Your task to perform on an android device: turn off smart reply in the gmail app Image 0: 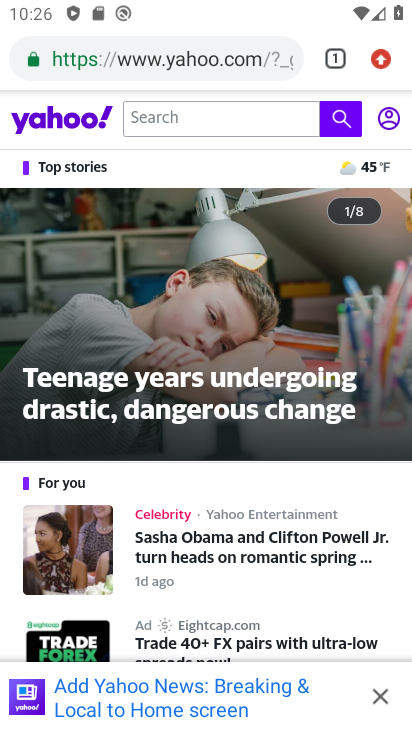
Step 0: press home button
Your task to perform on an android device: turn off smart reply in the gmail app Image 1: 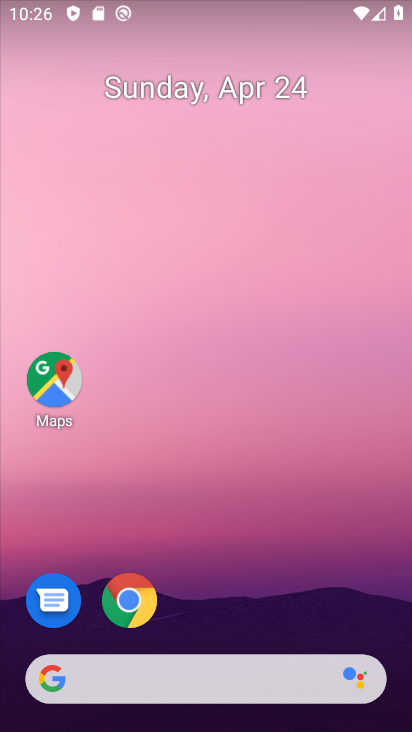
Step 1: drag from (243, 595) to (283, 78)
Your task to perform on an android device: turn off smart reply in the gmail app Image 2: 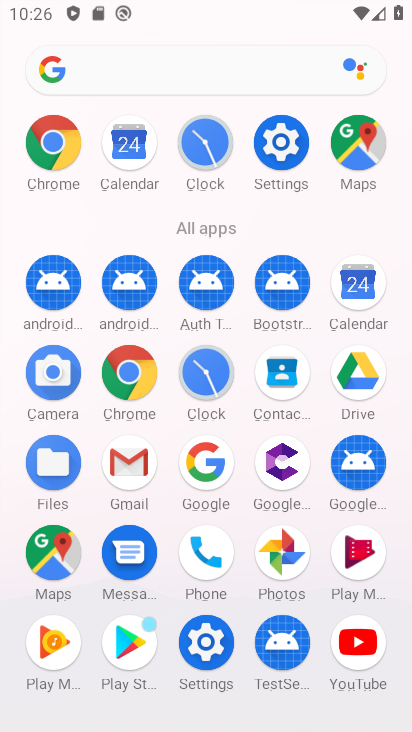
Step 2: click (130, 463)
Your task to perform on an android device: turn off smart reply in the gmail app Image 3: 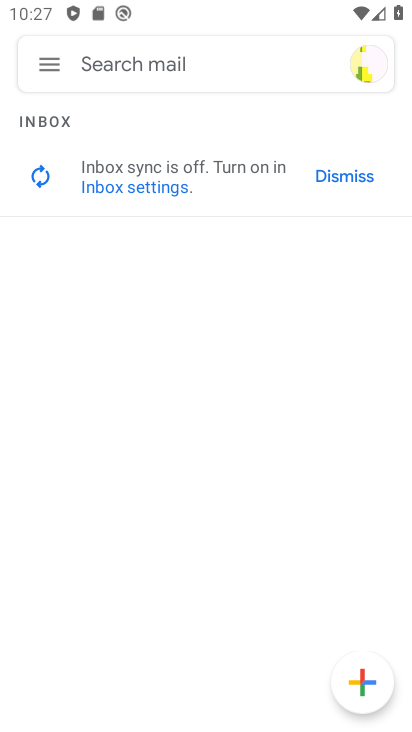
Step 3: click (49, 63)
Your task to perform on an android device: turn off smart reply in the gmail app Image 4: 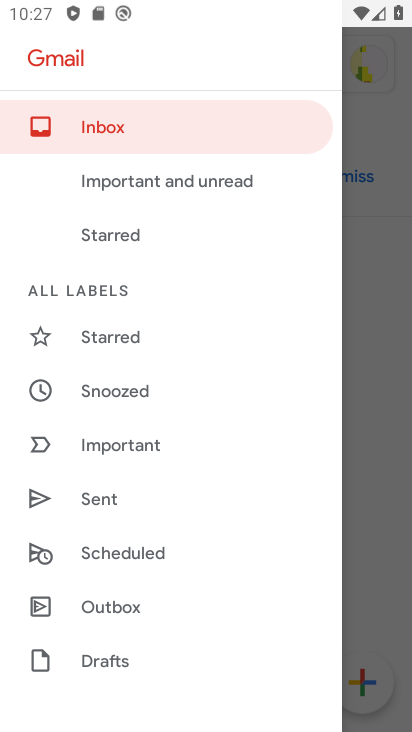
Step 4: drag from (177, 588) to (150, 103)
Your task to perform on an android device: turn off smart reply in the gmail app Image 5: 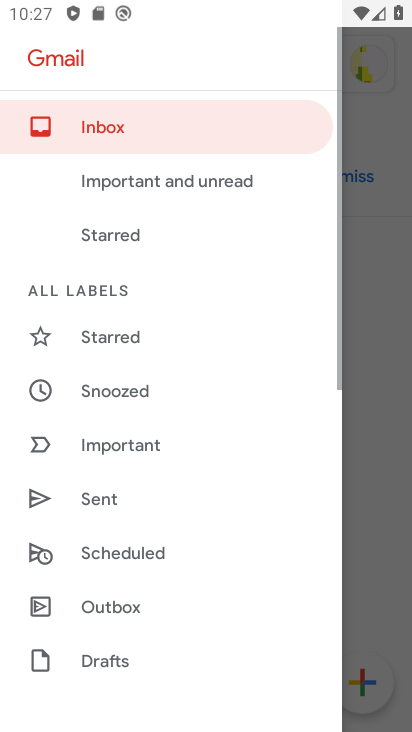
Step 5: drag from (175, 598) to (156, 312)
Your task to perform on an android device: turn off smart reply in the gmail app Image 6: 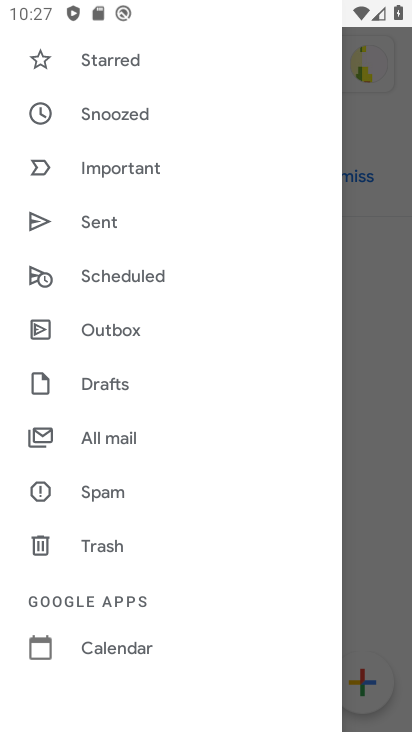
Step 6: drag from (131, 600) to (101, 130)
Your task to perform on an android device: turn off smart reply in the gmail app Image 7: 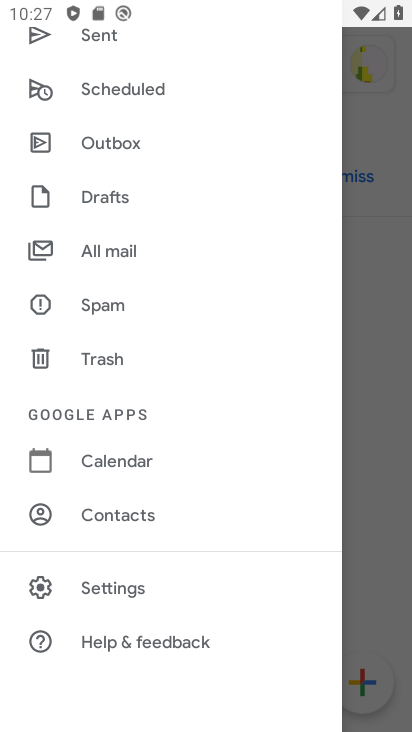
Step 7: click (116, 586)
Your task to perform on an android device: turn off smart reply in the gmail app Image 8: 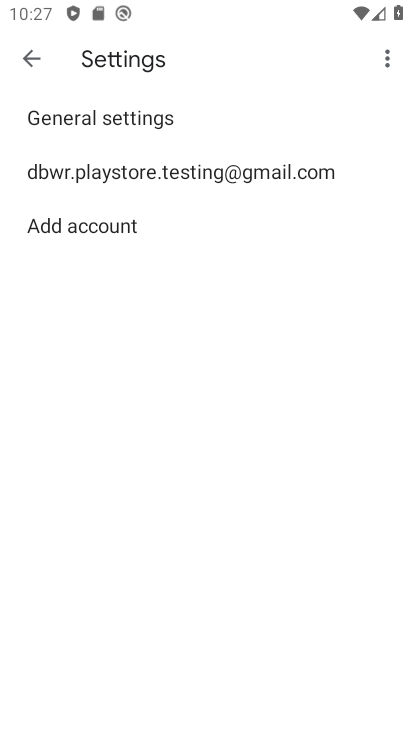
Step 8: click (125, 160)
Your task to perform on an android device: turn off smart reply in the gmail app Image 9: 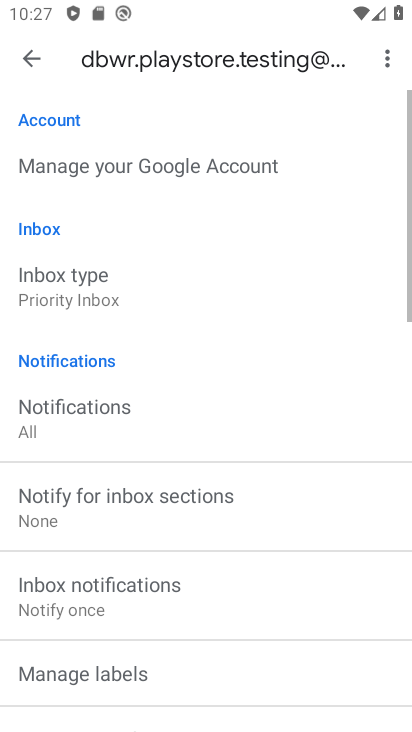
Step 9: drag from (221, 637) to (159, 201)
Your task to perform on an android device: turn off smart reply in the gmail app Image 10: 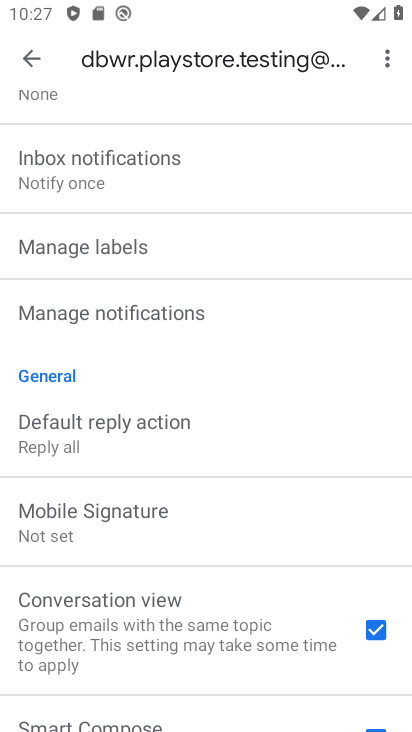
Step 10: drag from (211, 525) to (175, 71)
Your task to perform on an android device: turn off smart reply in the gmail app Image 11: 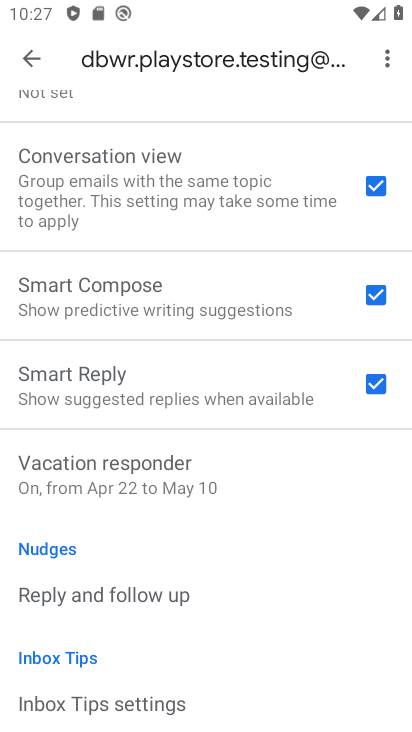
Step 11: click (380, 389)
Your task to perform on an android device: turn off smart reply in the gmail app Image 12: 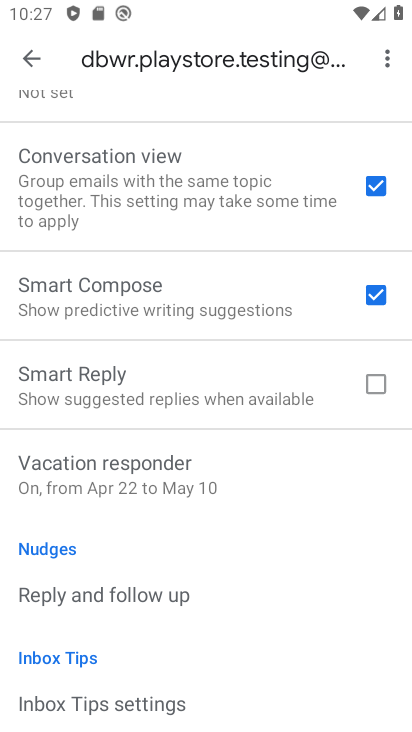
Step 12: task complete